Your task to perform on an android device: set the timer Image 0: 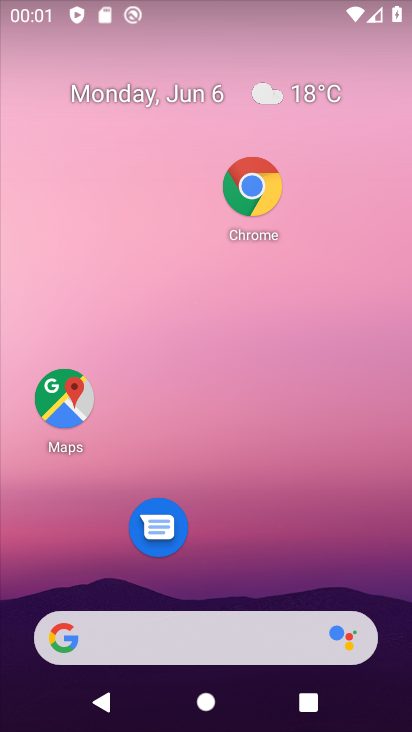
Step 0: drag from (191, 409) to (173, 202)
Your task to perform on an android device: set the timer Image 1: 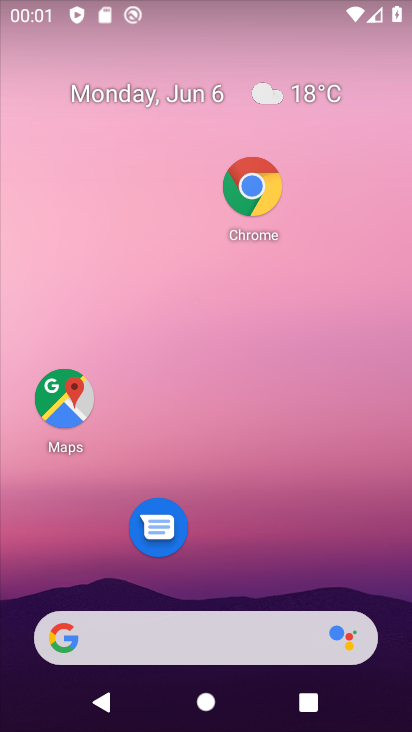
Step 1: drag from (252, 563) to (172, 107)
Your task to perform on an android device: set the timer Image 2: 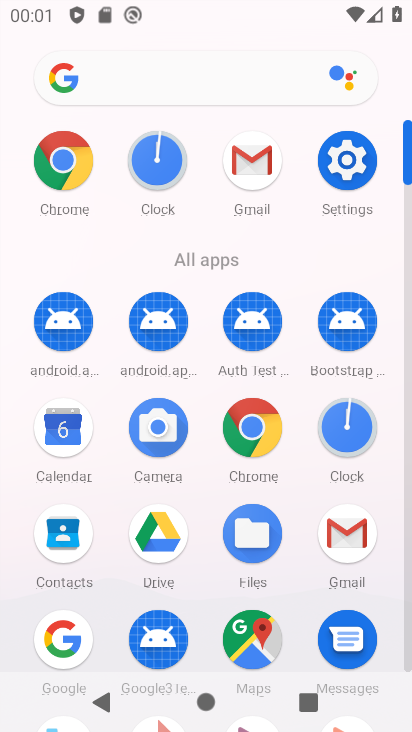
Step 2: drag from (214, 582) to (193, 281)
Your task to perform on an android device: set the timer Image 3: 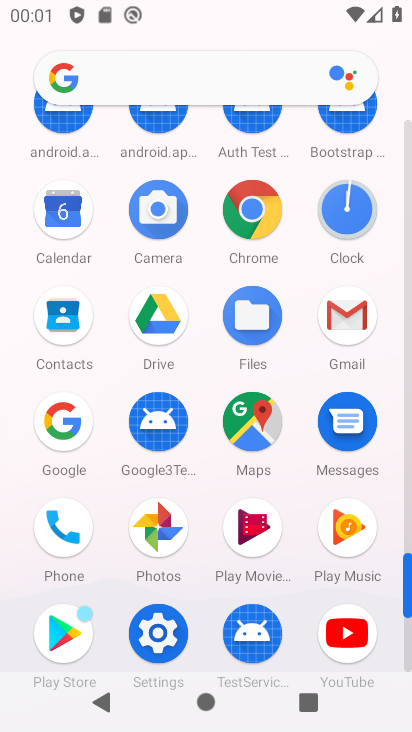
Step 3: drag from (228, 541) to (228, 28)
Your task to perform on an android device: set the timer Image 4: 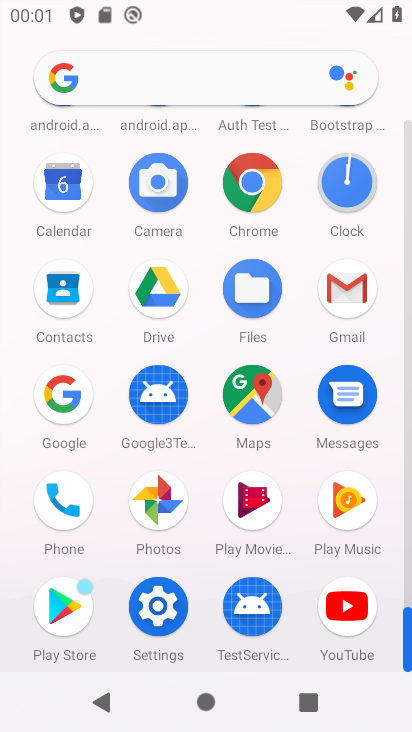
Step 4: click (348, 230)
Your task to perform on an android device: set the timer Image 5: 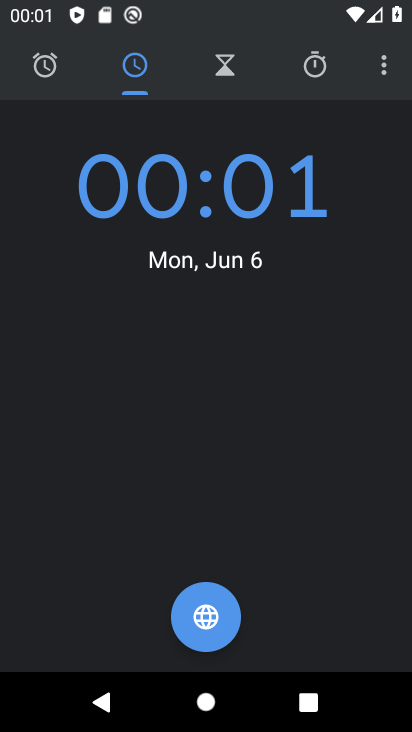
Step 5: click (231, 76)
Your task to perform on an android device: set the timer Image 6: 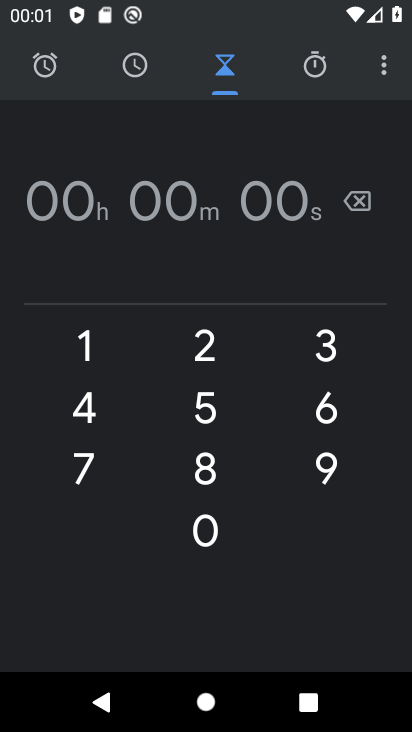
Step 6: click (208, 353)
Your task to perform on an android device: set the timer Image 7: 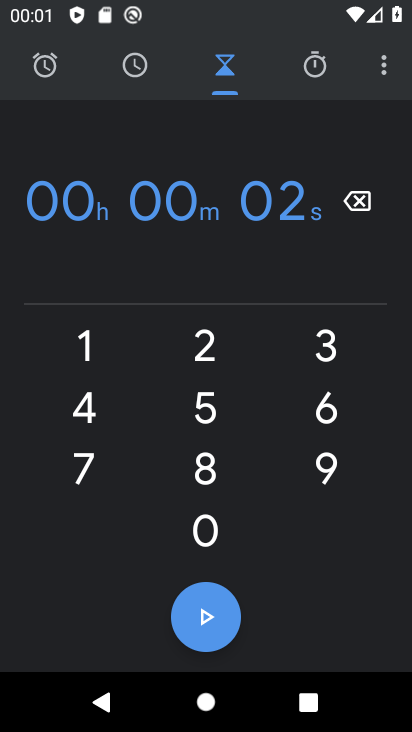
Step 7: click (203, 538)
Your task to perform on an android device: set the timer Image 8: 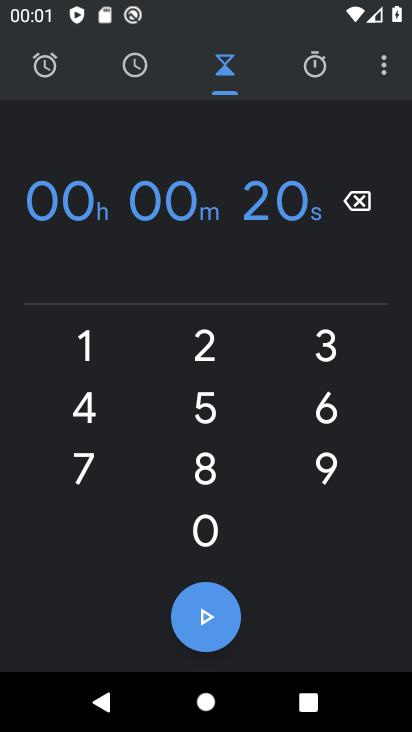
Step 8: click (198, 359)
Your task to perform on an android device: set the timer Image 9: 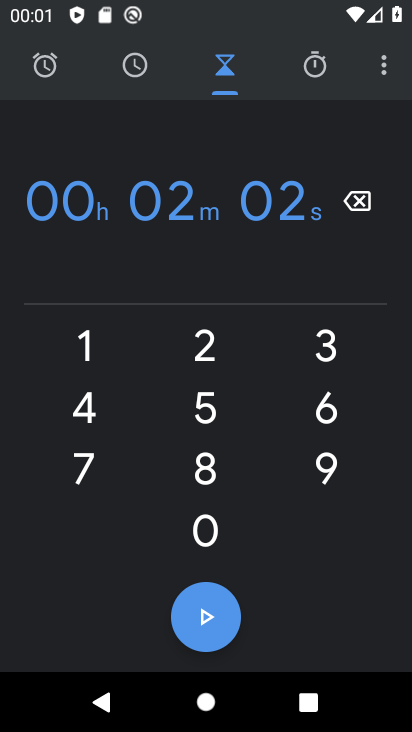
Step 9: click (211, 532)
Your task to perform on an android device: set the timer Image 10: 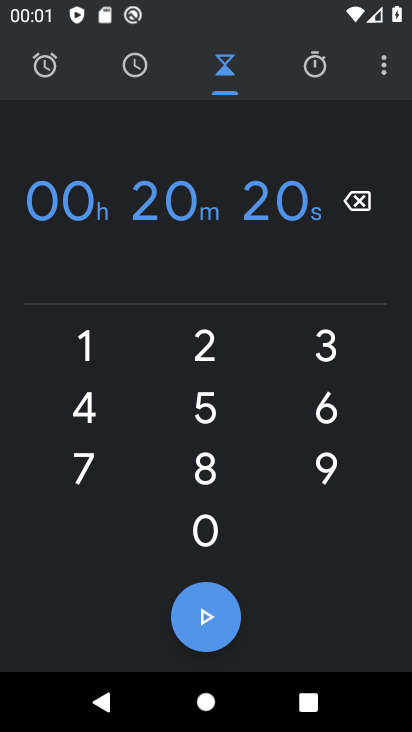
Step 10: click (203, 628)
Your task to perform on an android device: set the timer Image 11: 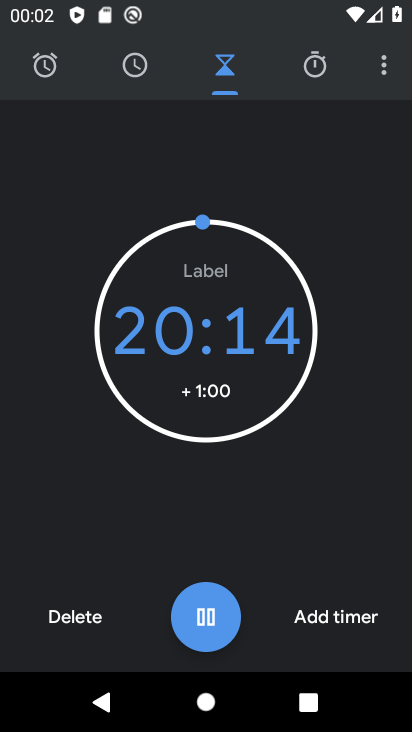
Step 11: click (333, 621)
Your task to perform on an android device: set the timer Image 12: 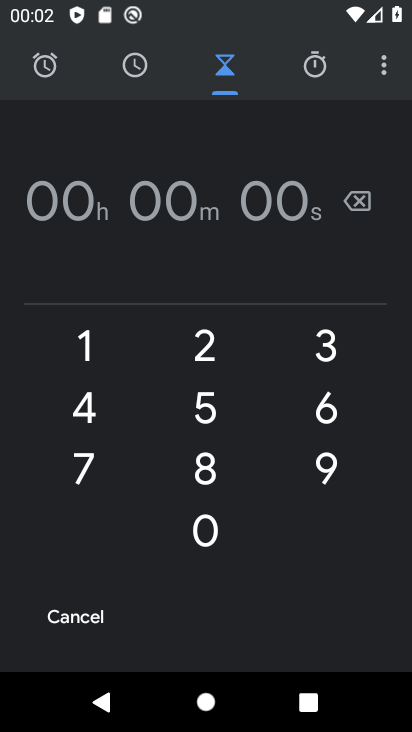
Step 12: task complete